Your task to perform on an android device: check the backup settings in the google photos Image 0: 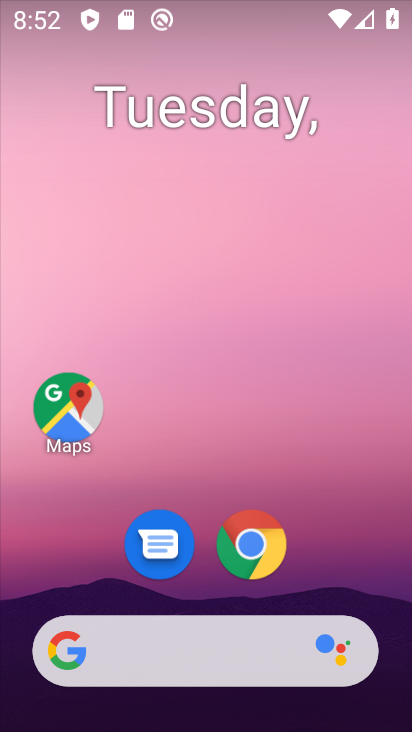
Step 0: drag from (193, 597) to (394, 413)
Your task to perform on an android device: check the backup settings in the google photos Image 1: 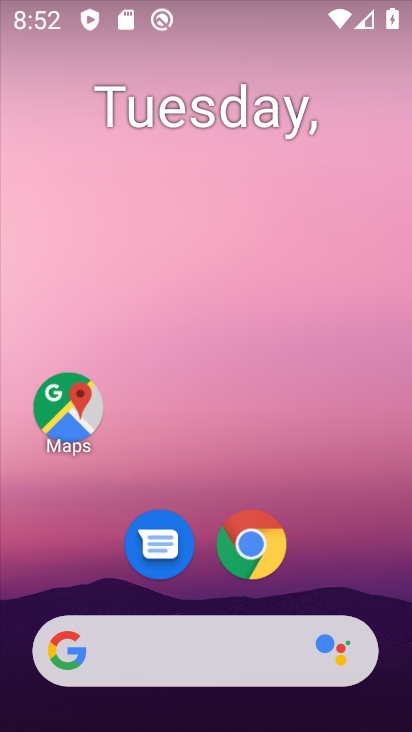
Step 1: drag from (211, 622) to (245, 77)
Your task to perform on an android device: check the backup settings in the google photos Image 2: 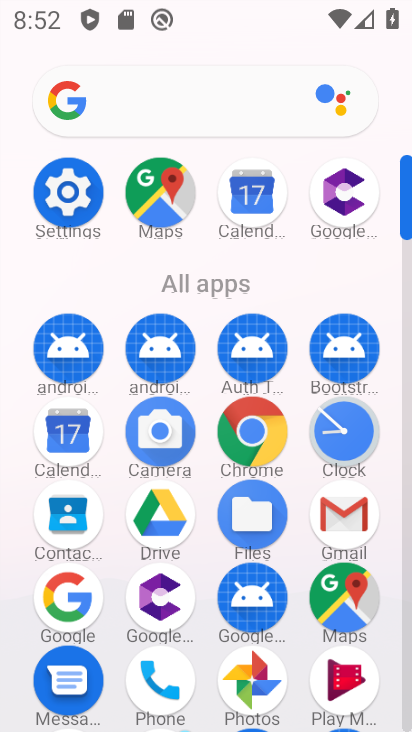
Step 2: click (252, 680)
Your task to perform on an android device: check the backup settings in the google photos Image 3: 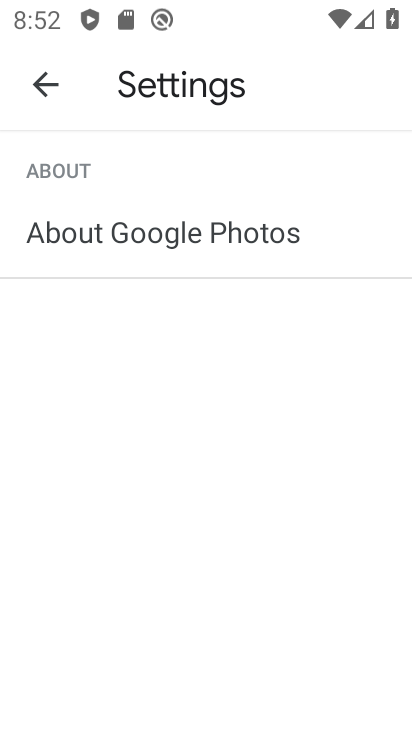
Step 3: click (47, 82)
Your task to perform on an android device: check the backup settings in the google photos Image 4: 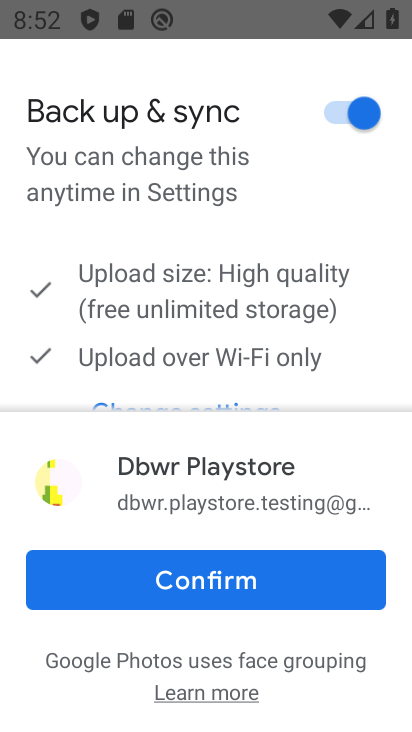
Step 4: drag from (159, 339) to (136, 155)
Your task to perform on an android device: check the backup settings in the google photos Image 5: 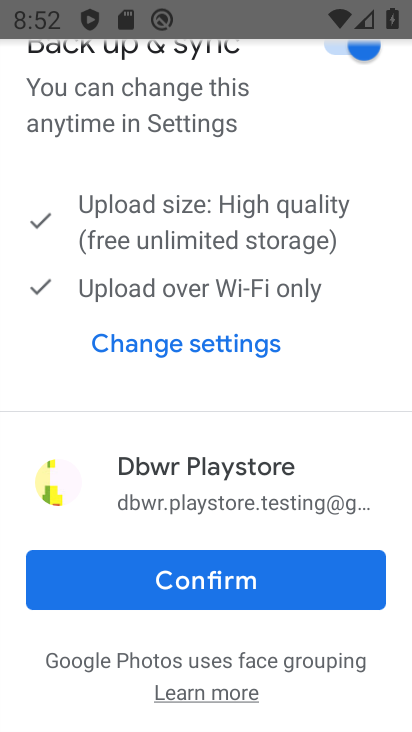
Step 5: click (155, 345)
Your task to perform on an android device: check the backup settings in the google photos Image 6: 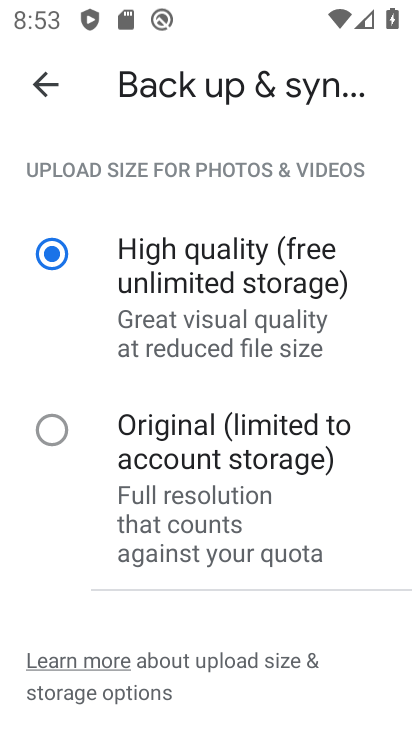
Step 6: click (66, 431)
Your task to perform on an android device: check the backup settings in the google photos Image 7: 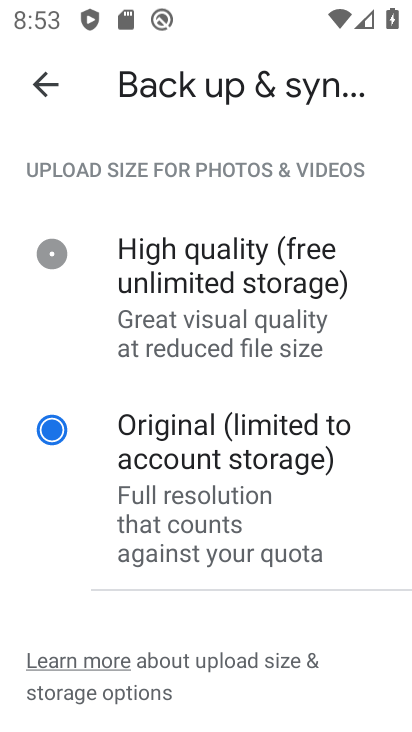
Step 7: task complete